Your task to perform on an android device: Open notification settings Image 0: 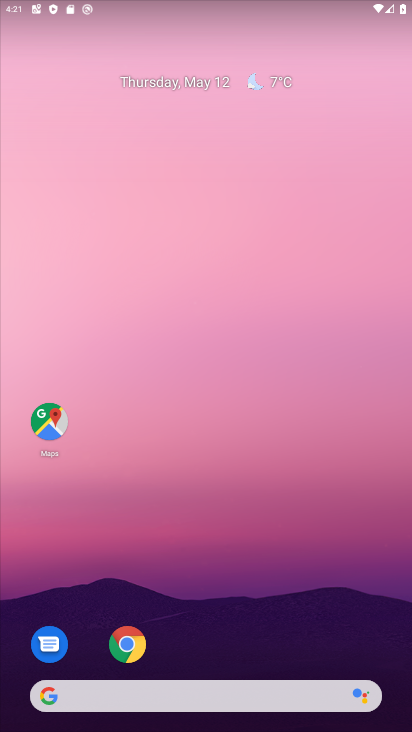
Step 0: press home button
Your task to perform on an android device: Open notification settings Image 1: 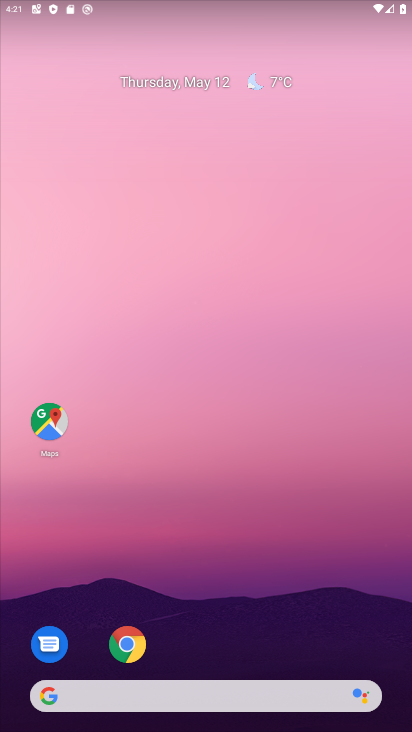
Step 1: drag from (220, 647) to (291, 89)
Your task to perform on an android device: Open notification settings Image 2: 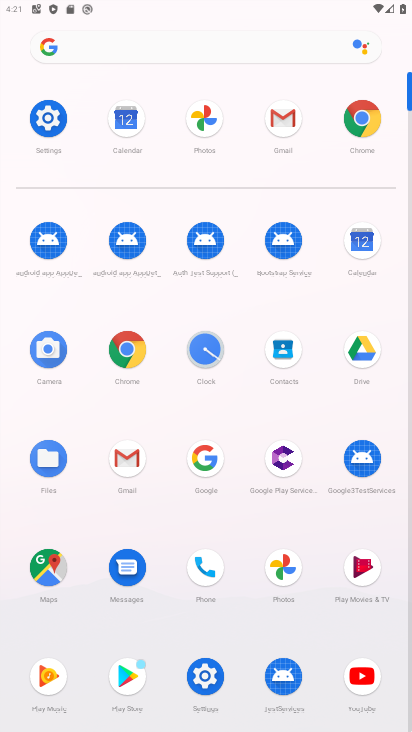
Step 2: click (44, 117)
Your task to perform on an android device: Open notification settings Image 3: 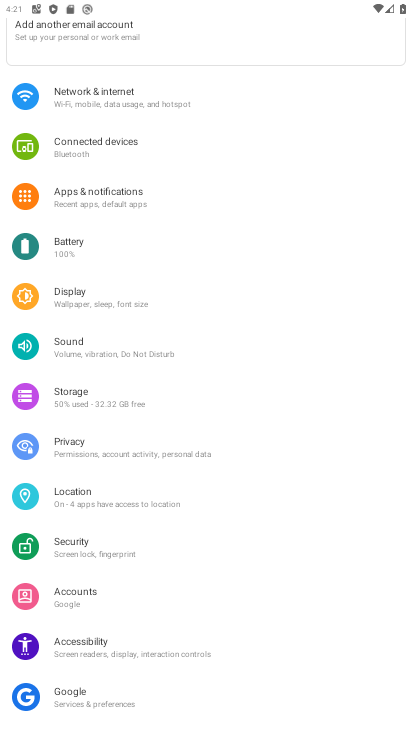
Step 3: click (151, 190)
Your task to perform on an android device: Open notification settings Image 4: 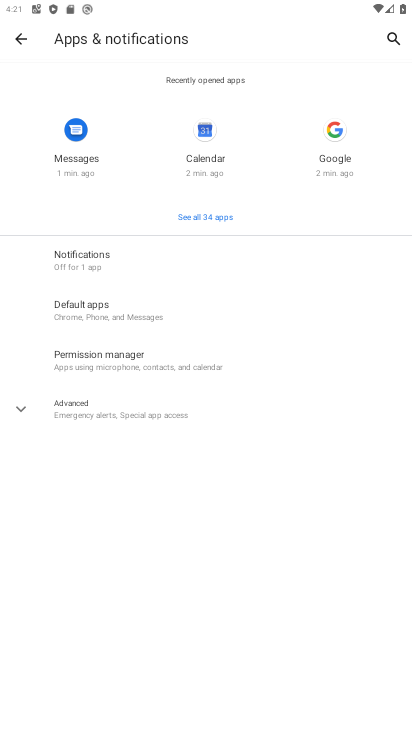
Step 4: click (112, 261)
Your task to perform on an android device: Open notification settings Image 5: 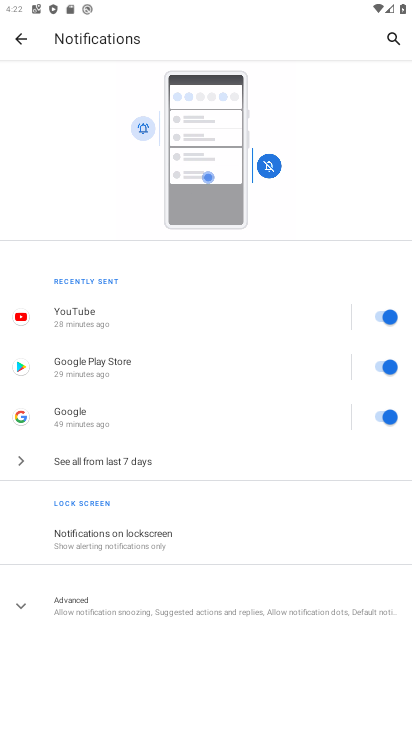
Step 5: click (61, 596)
Your task to perform on an android device: Open notification settings Image 6: 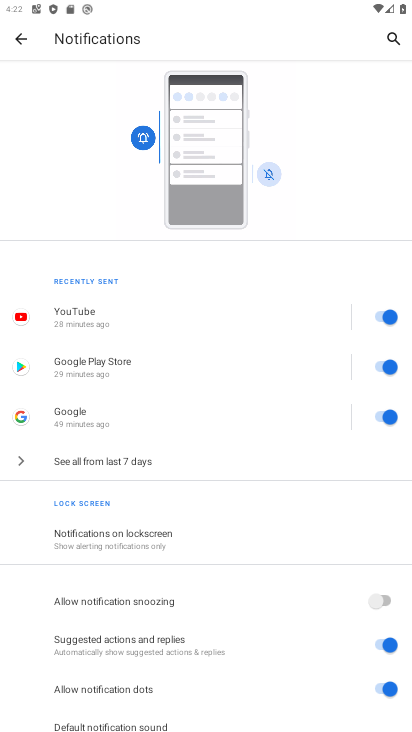
Step 6: task complete